Your task to perform on an android device: toggle translation in the chrome app Image 0: 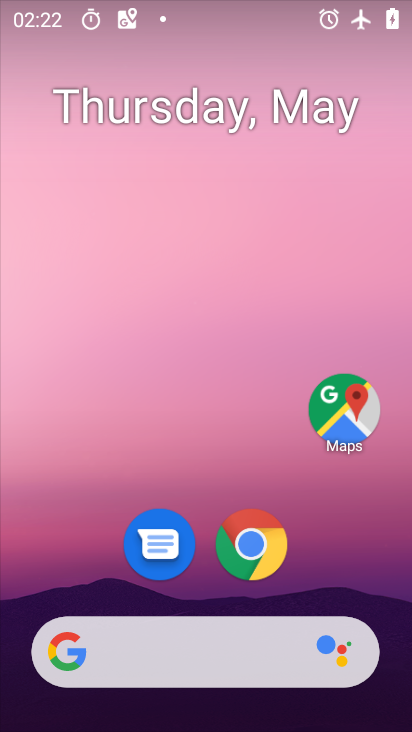
Step 0: drag from (361, 564) to (368, 244)
Your task to perform on an android device: toggle translation in the chrome app Image 1: 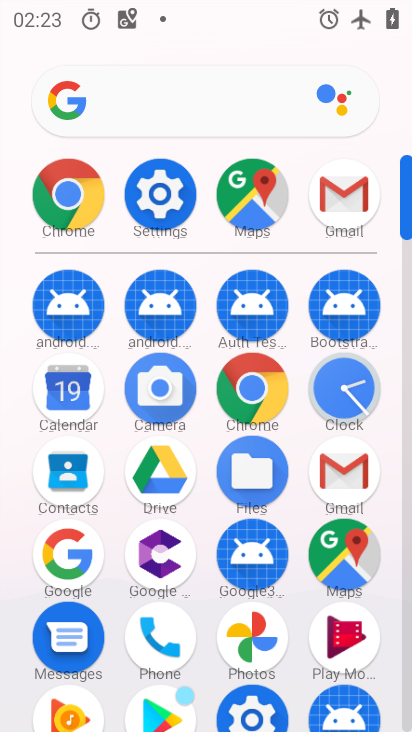
Step 1: click (255, 402)
Your task to perform on an android device: toggle translation in the chrome app Image 2: 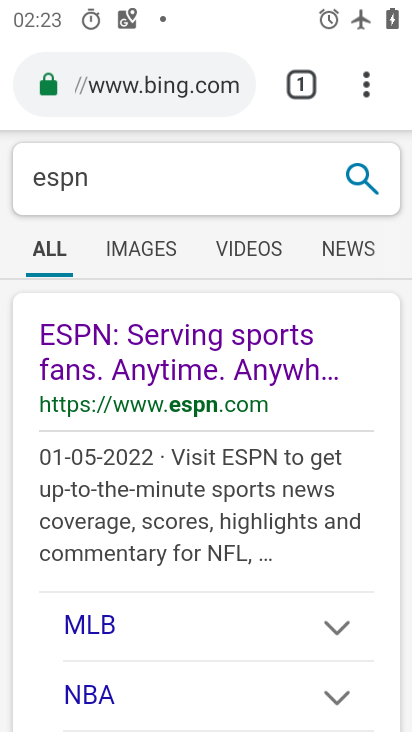
Step 2: click (363, 97)
Your task to perform on an android device: toggle translation in the chrome app Image 3: 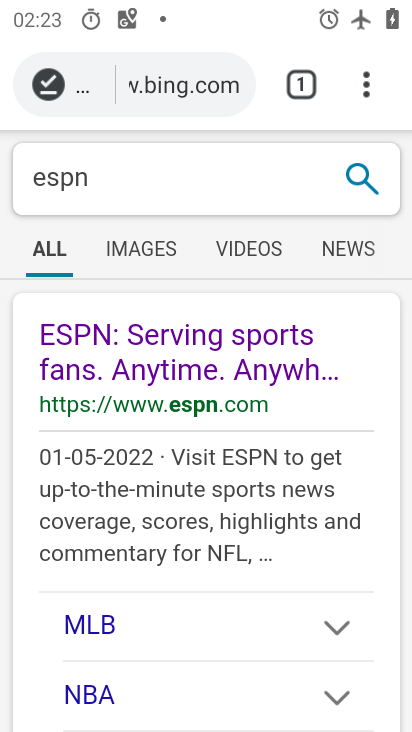
Step 3: click (363, 97)
Your task to perform on an android device: toggle translation in the chrome app Image 4: 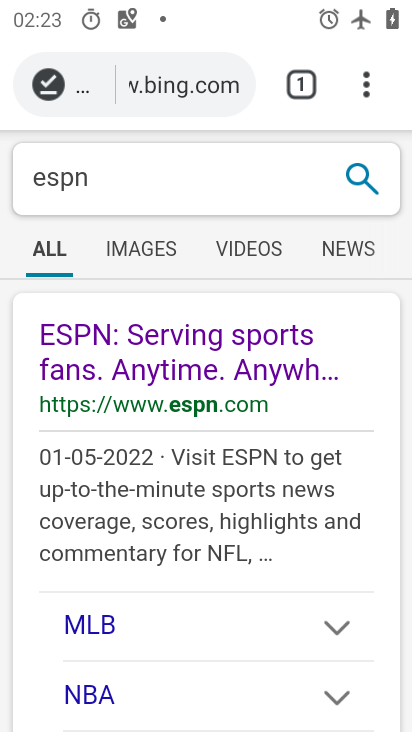
Step 4: click (363, 97)
Your task to perform on an android device: toggle translation in the chrome app Image 5: 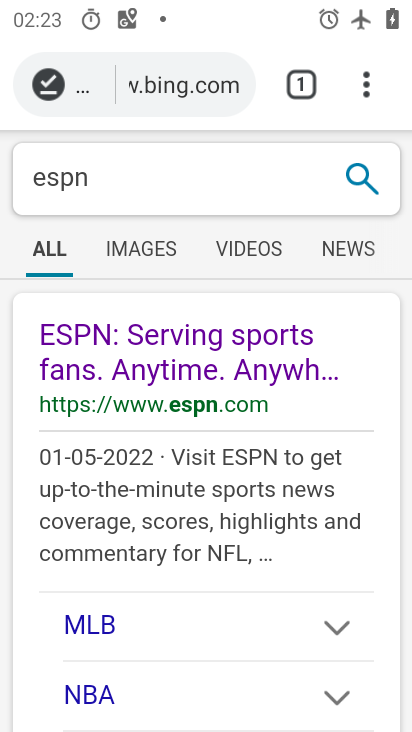
Step 5: click (370, 83)
Your task to perform on an android device: toggle translation in the chrome app Image 6: 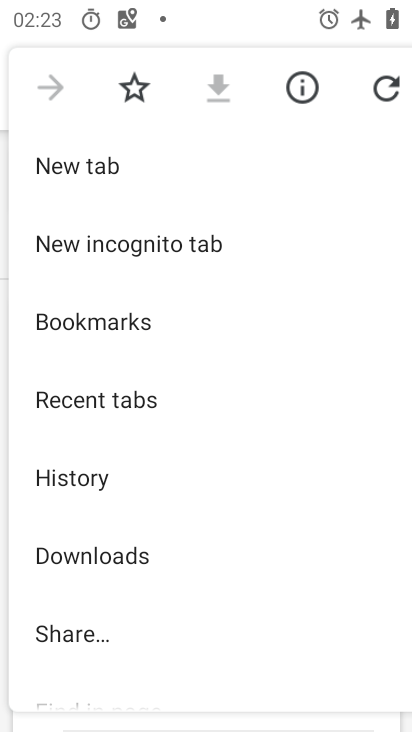
Step 6: drag from (323, 506) to (336, 384)
Your task to perform on an android device: toggle translation in the chrome app Image 7: 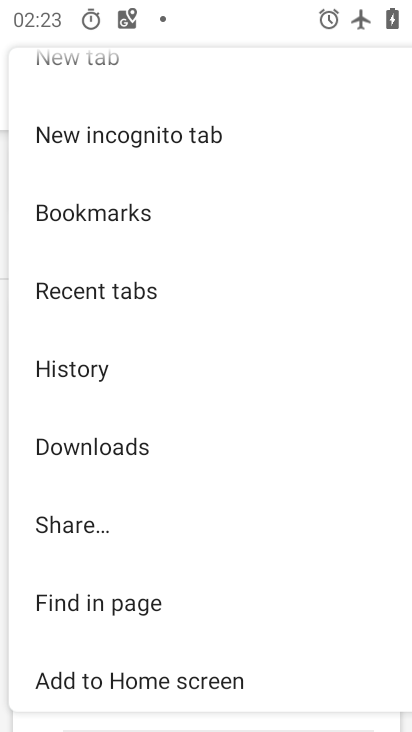
Step 7: drag from (335, 519) to (327, 450)
Your task to perform on an android device: toggle translation in the chrome app Image 8: 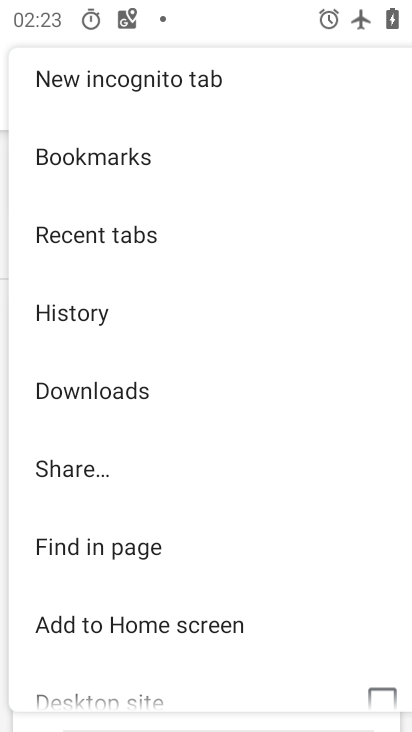
Step 8: drag from (320, 547) to (320, 468)
Your task to perform on an android device: toggle translation in the chrome app Image 9: 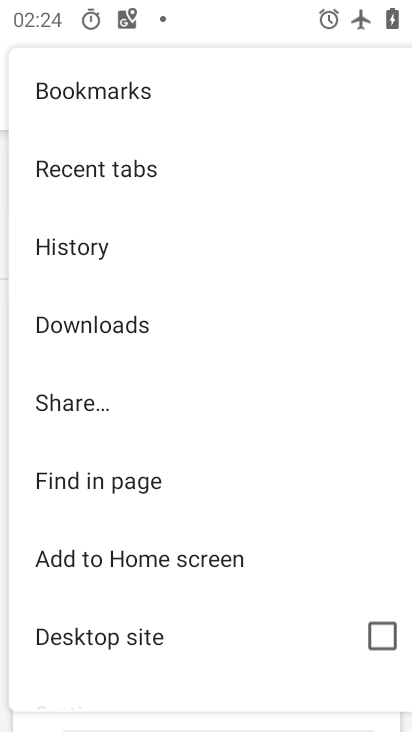
Step 9: drag from (315, 583) to (323, 468)
Your task to perform on an android device: toggle translation in the chrome app Image 10: 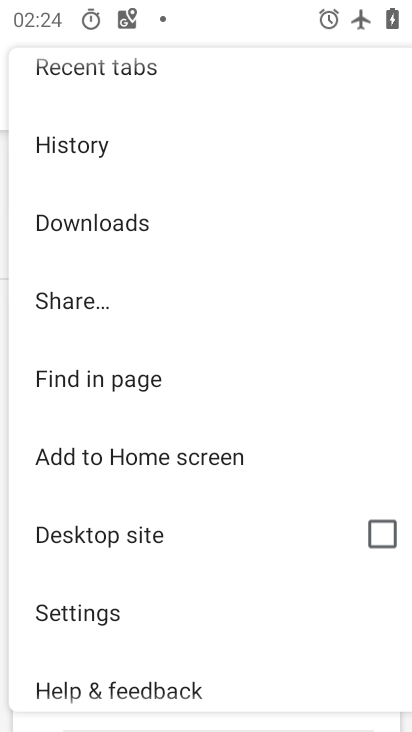
Step 10: drag from (314, 616) to (315, 559)
Your task to perform on an android device: toggle translation in the chrome app Image 11: 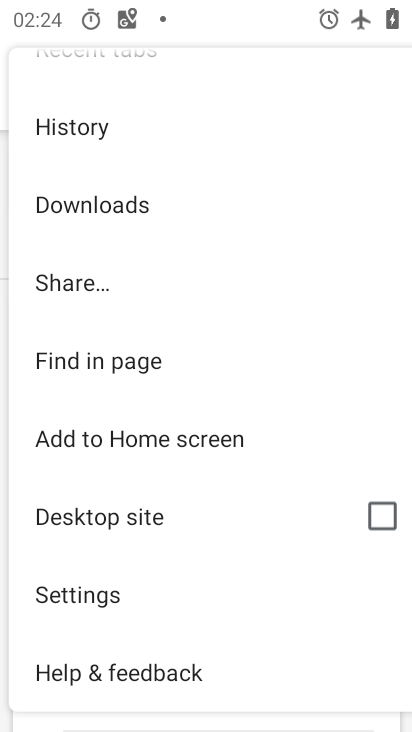
Step 11: drag from (258, 617) to (262, 516)
Your task to perform on an android device: toggle translation in the chrome app Image 12: 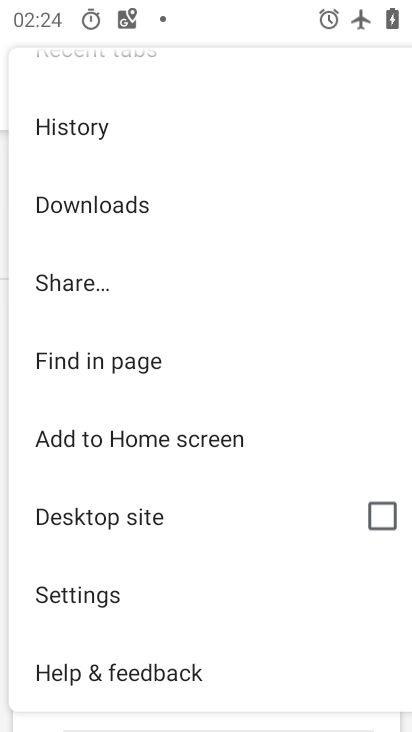
Step 12: click (211, 585)
Your task to perform on an android device: toggle translation in the chrome app Image 13: 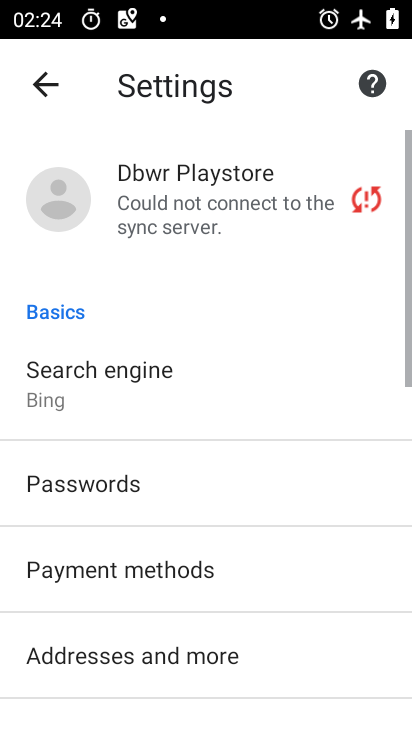
Step 13: drag from (222, 614) to (239, 474)
Your task to perform on an android device: toggle translation in the chrome app Image 14: 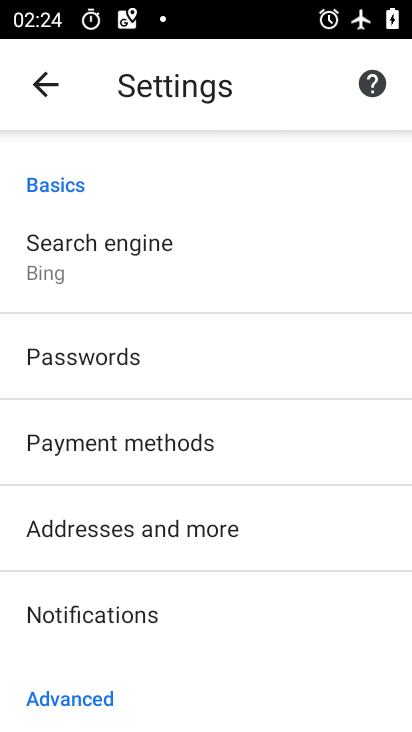
Step 14: drag from (255, 626) to (273, 505)
Your task to perform on an android device: toggle translation in the chrome app Image 15: 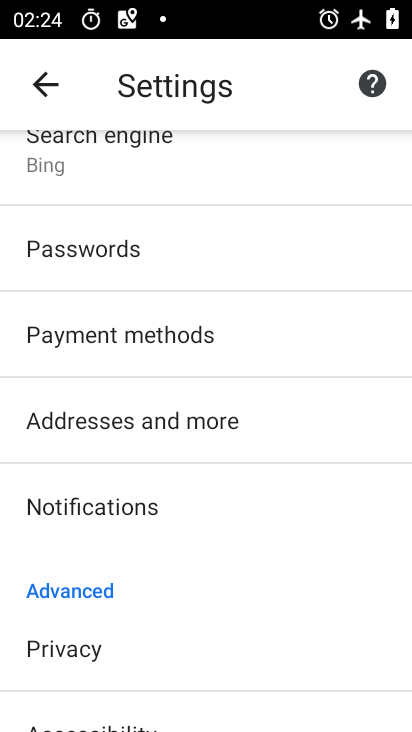
Step 15: drag from (264, 639) to (279, 531)
Your task to perform on an android device: toggle translation in the chrome app Image 16: 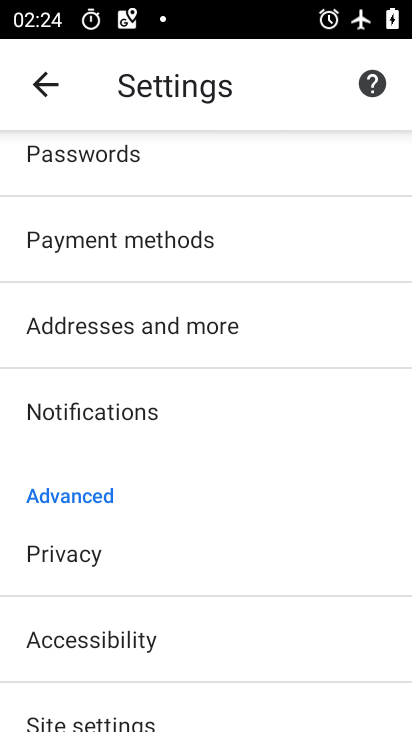
Step 16: drag from (289, 632) to (290, 528)
Your task to perform on an android device: toggle translation in the chrome app Image 17: 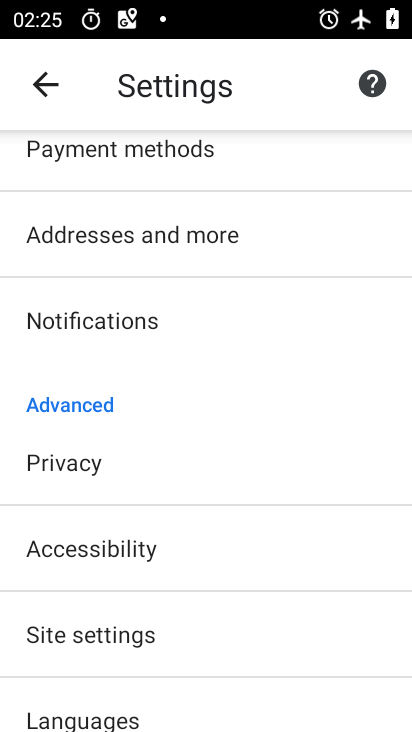
Step 17: drag from (304, 656) to (297, 543)
Your task to perform on an android device: toggle translation in the chrome app Image 18: 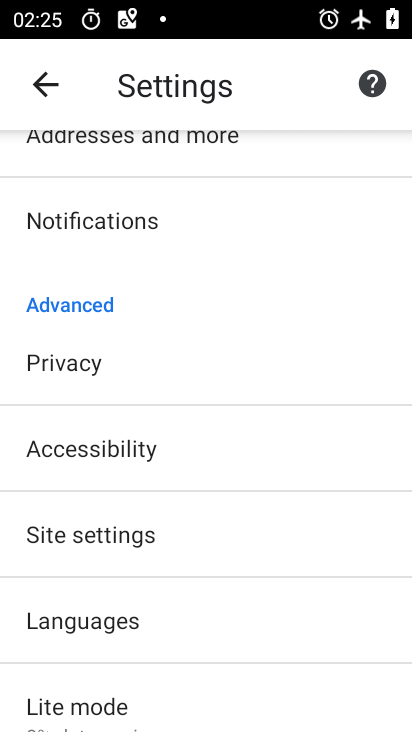
Step 18: click (239, 624)
Your task to perform on an android device: toggle translation in the chrome app Image 19: 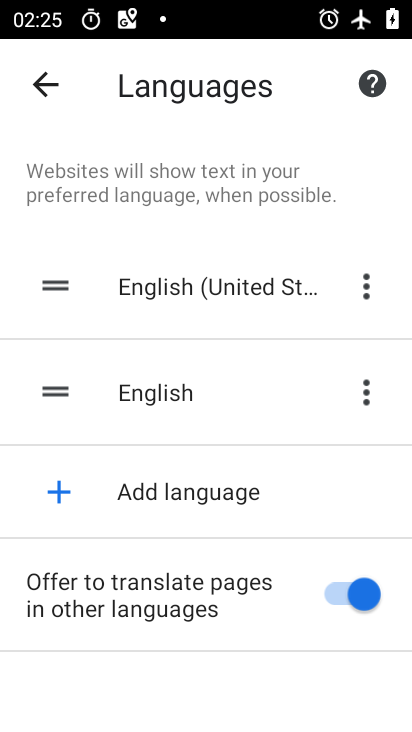
Step 19: click (352, 597)
Your task to perform on an android device: toggle translation in the chrome app Image 20: 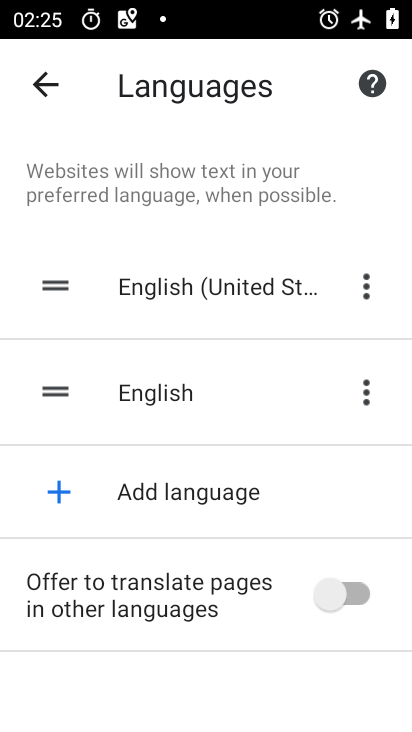
Step 20: task complete